Your task to perform on an android device: What's the weather? Image 0: 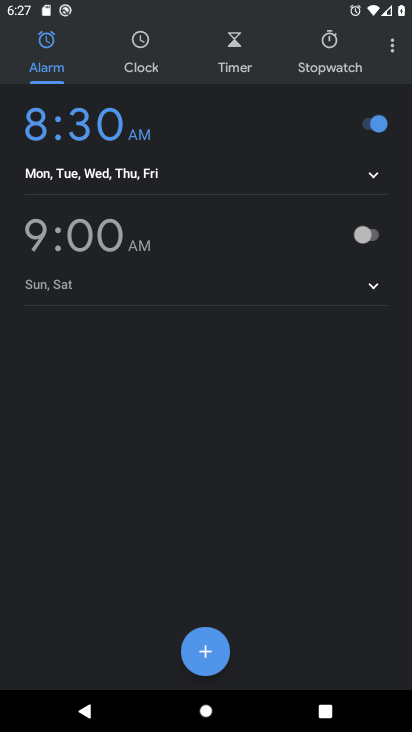
Step 0: press home button
Your task to perform on an android device: What's the weather? Image 1: 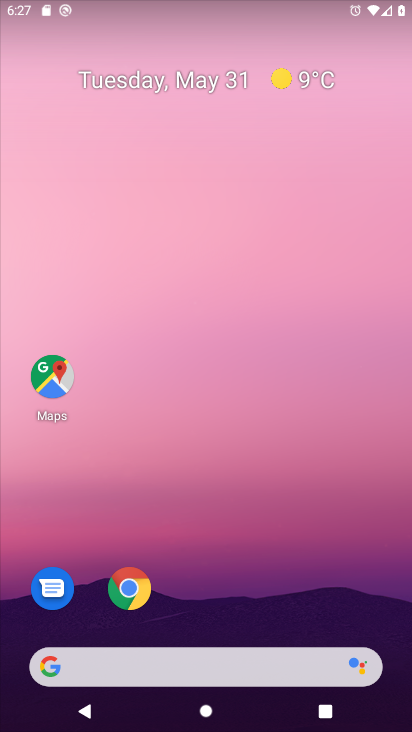
Step 1: drag from (222, 617) to (215, 176)
Your task to perform on an android device: What's the weather? Image 2: 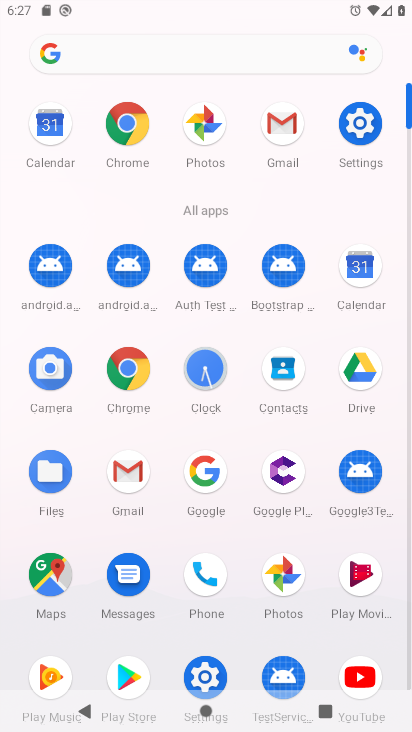
Step 2: click (207, 477)
Your task to perform on an android device: What's the weather? Image 3: 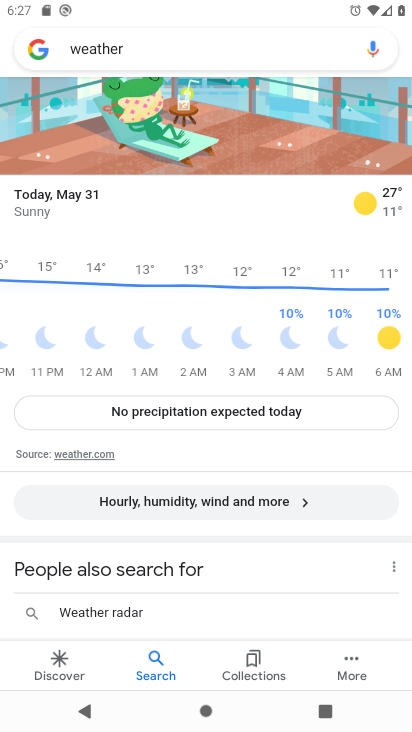
Step 3: task complete